Your task to perform on an android device: Go to network settings Image 0: 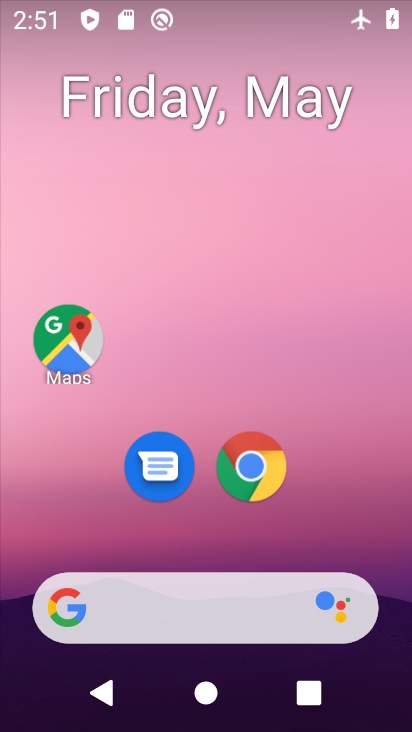
Step 0: drag from (218, 527) to (237, 92)
Your task to perform on an android device: Go to network settings Image 1: 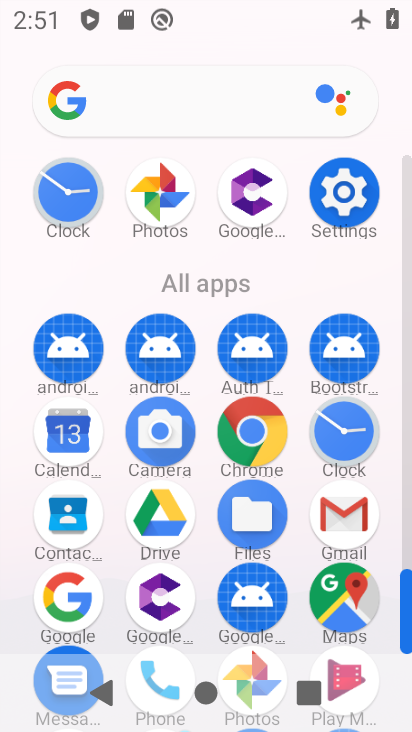
Step 1: click (340, 186)
Your task to perform on an android device: Go to network settings Image 2: 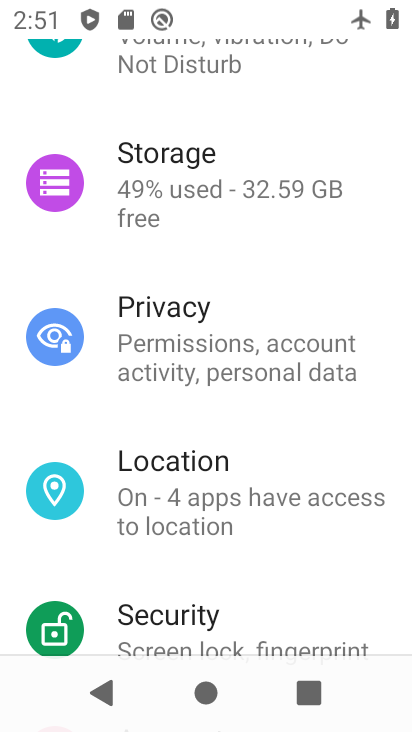
Step 2: drag from (212, 151) to (231, 726)
Your task to perform on an android device: Go to network settings Image 3: 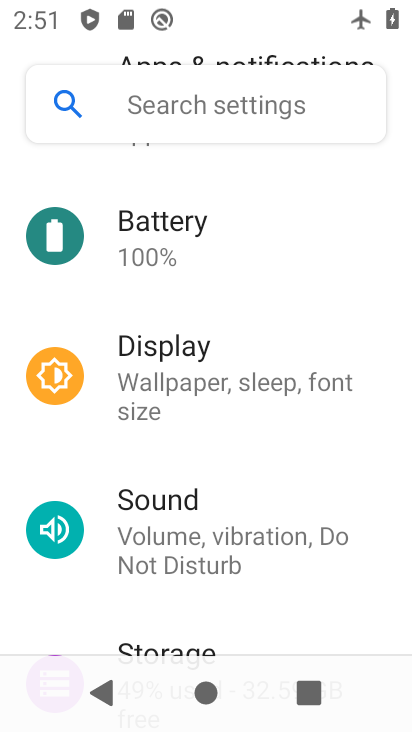
Step 3: drag from (122, 400) to (136, 678)
Your task to perform on an android device: Go to network settings Image 4: 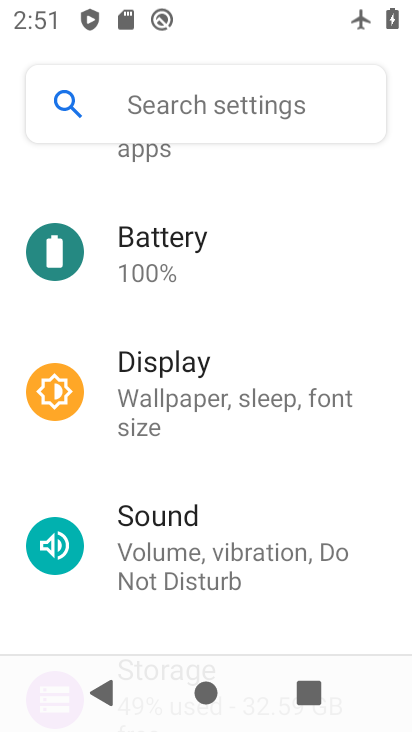
Step 4: drag from (105, 460) to (102, 641)
Your task to perform on an android device: Go to network settings Image 5: 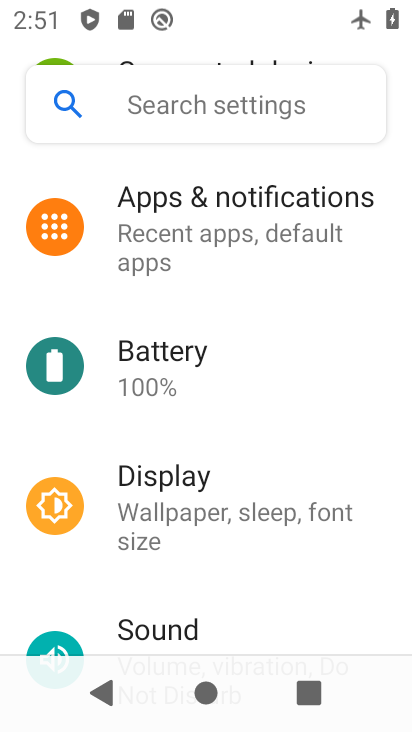
Step 5: drag from (114, 207) to (117, 544)
Your task to perform on an android device: Go to network settings Image 6: 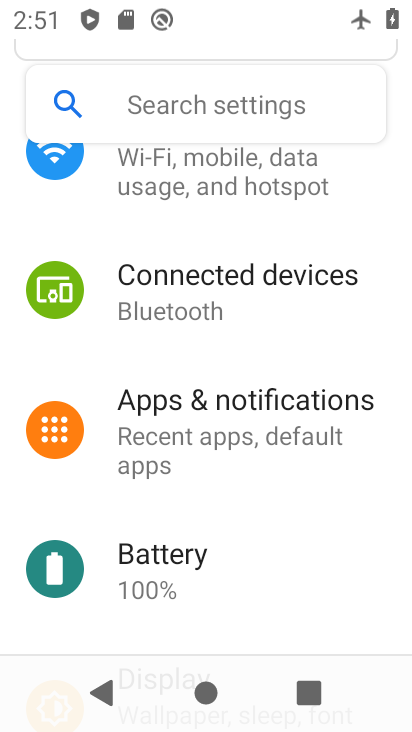
Step 6: drag from (116, 245) to (110, 583)
Your task to perform on an android device: Go to network settings Image 7: 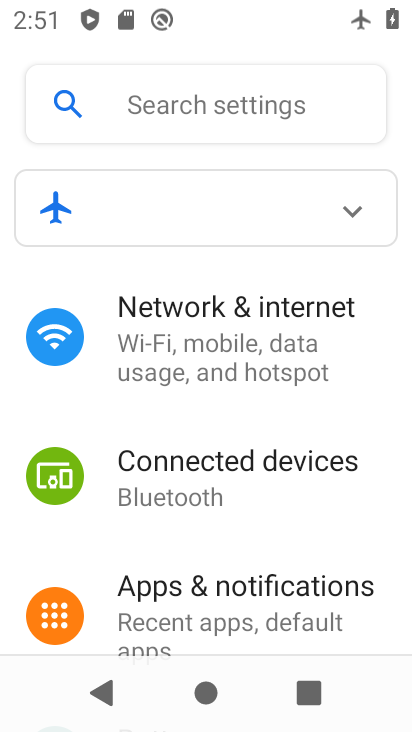
Step 7: click (103, 338)
Your task to perform on an android device: Go to network settings Image 8: 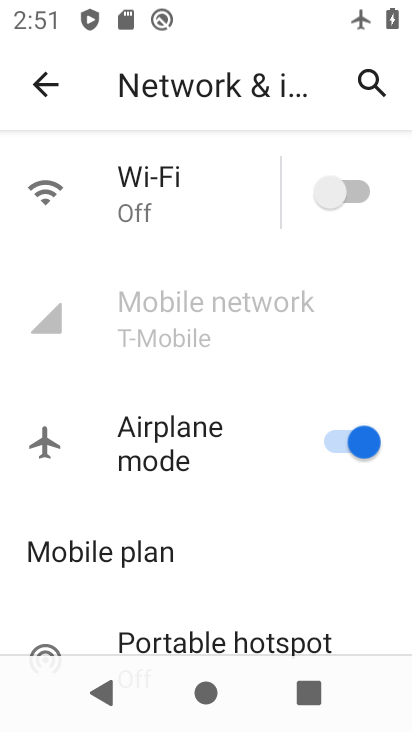
Step 8: drag from (220, 515) to (236, 259)
Your task to perform on an android device: Go to network settings Image 9: 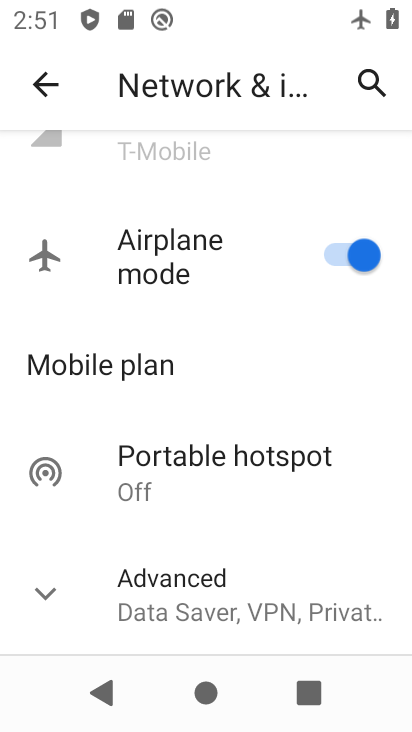
Step 9: click (46, 592)
Your task to perform on an android device: Go to network settings Image 10: 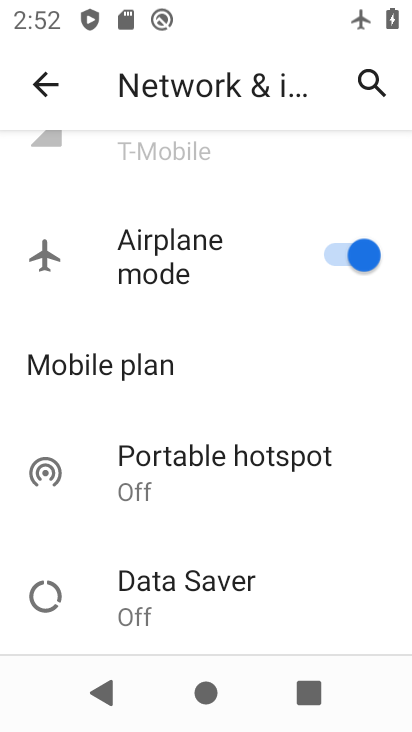
Step 10: task complete